Your task to perform on an android device: check google app version Image 0: 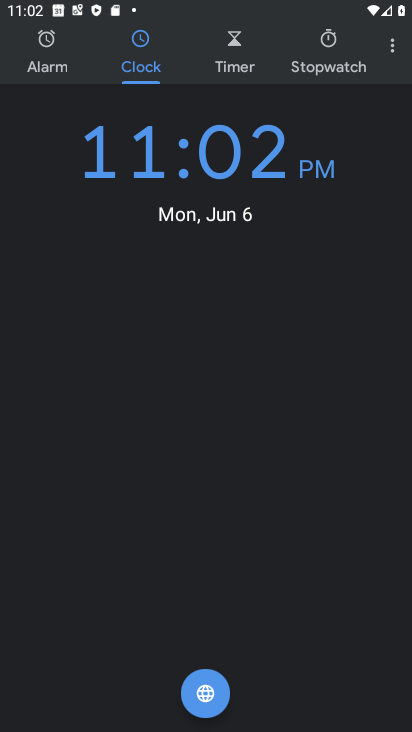
Step 0: press home button
Your task to perform on an android device: check google app version Image 1: 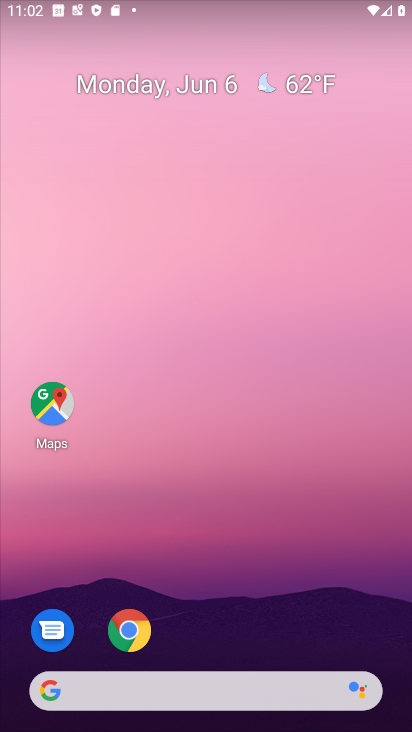
Step 1: drag from (374, 597) to (314, 194)
Your task to perform on an android device: check google app version Image 2: 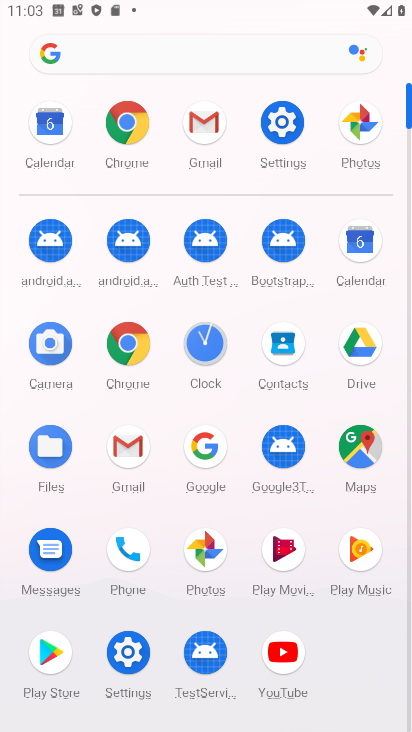
Step 2: click (200, 461)
Your task to perform on an android device: check google app version Image 3: 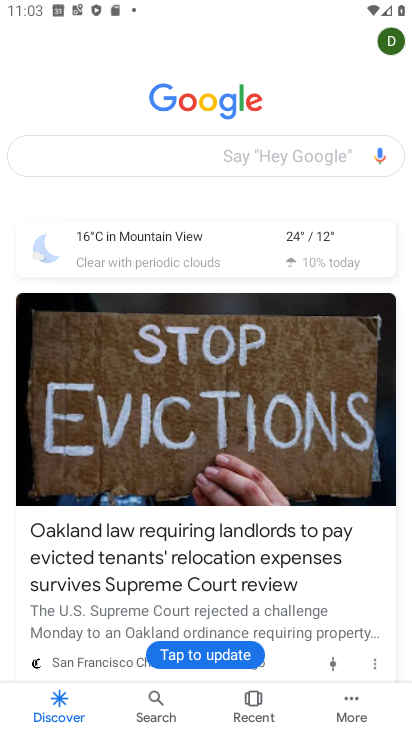
Step 3: click (364, 701)
Your task to perform on an android device: check google app version Image 4: 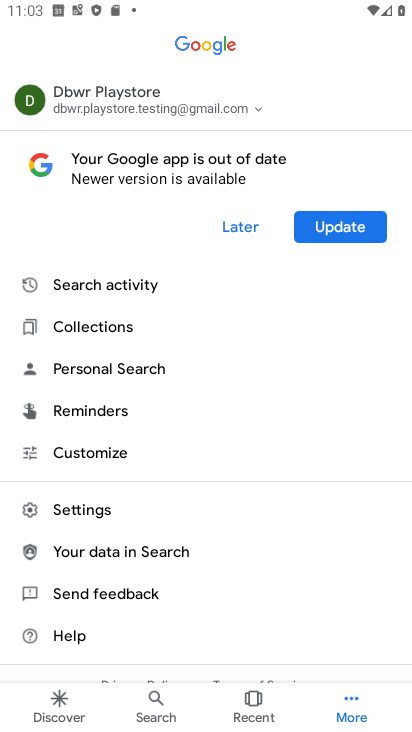
Step 4: click (116, 518)
Your task to perform on an android device: check google app version Image 5: 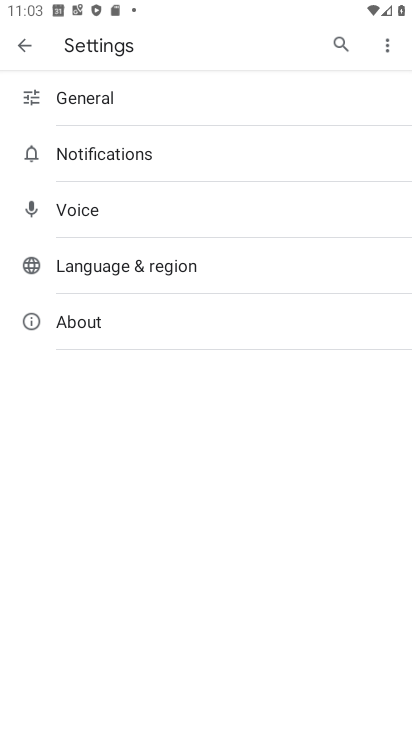
Step 5: click (99, 327)
Your task to perform on an android device: check google app version Image 6: 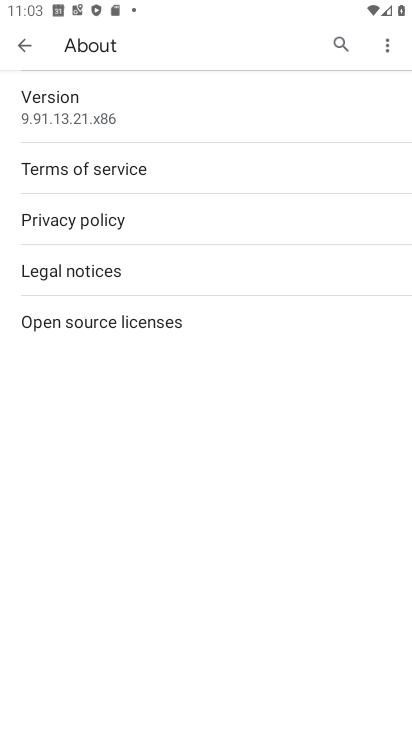
Step 6: task complete